Your task to perform on an android device: move an email to a new category in the gmail app Image 0: 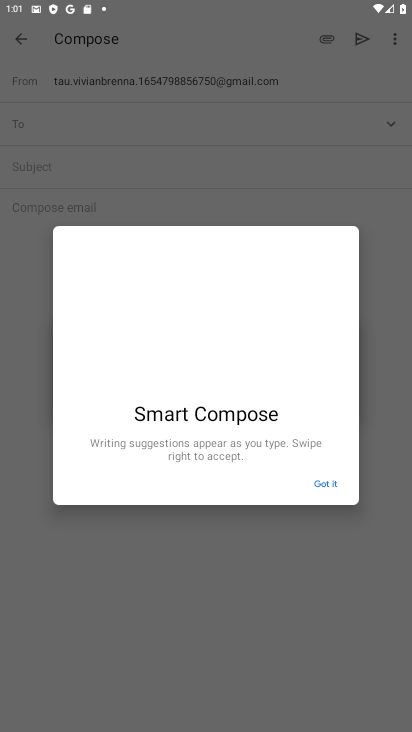
Step 0: press home button
Your task to perform on an android device: move an email to a new category in the gmail app Image 1: 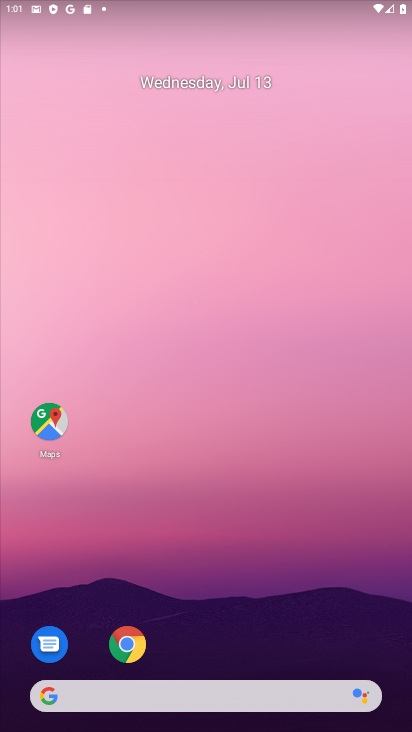
Step 1: drag from (249, 642) to (195, 113)
Your task to perform on an android device: move an email to a new category in the gmail app Image 2: 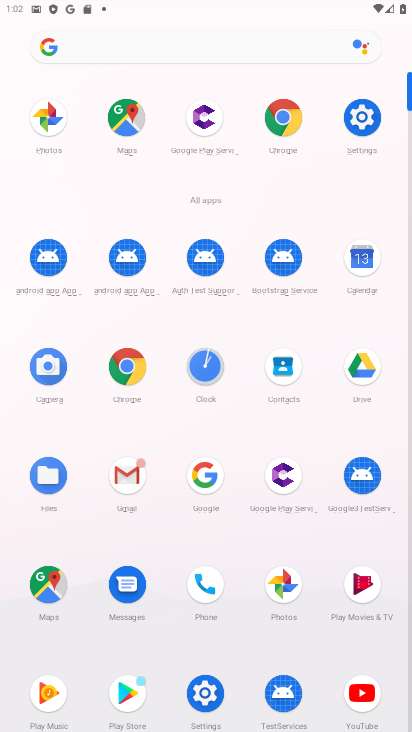
Step 2: click (128, 479)
Your task to perform on an android device: move an email to a new category in the gmail app Image 3: 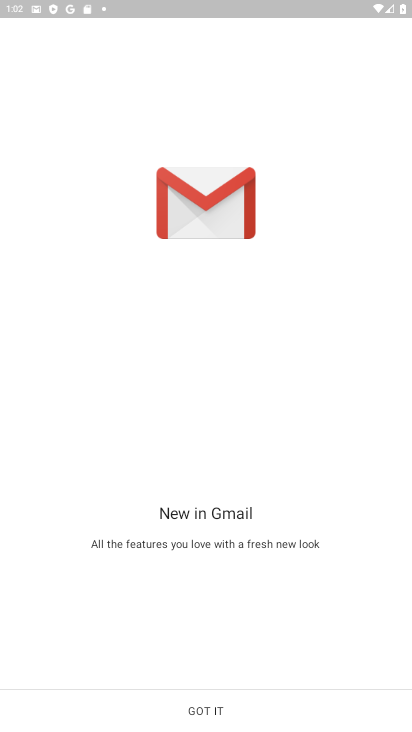
Step 3: click (207, 711)
Your task to perform on an android device: move an email to a new category in the gmail app Image 4: 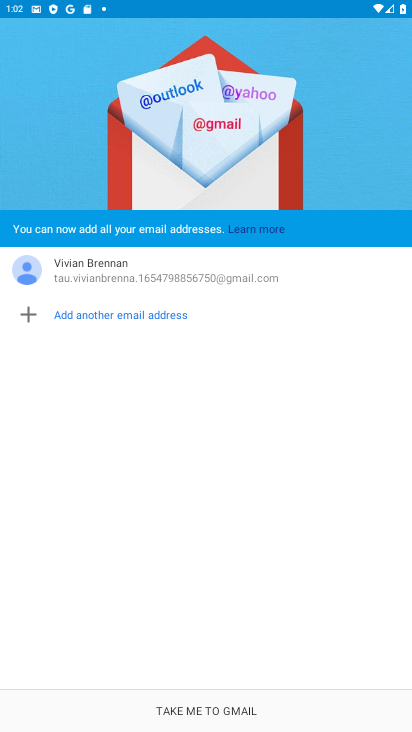
Step 4: click (208, 710)
Your task to perform on an android device: move an email to a new category in the gmail app Image 5: 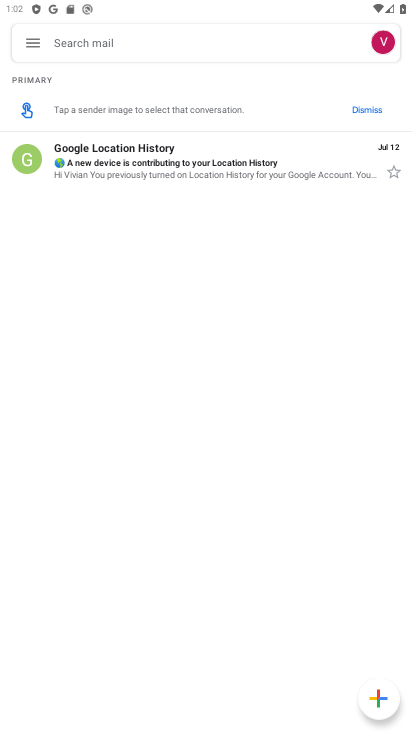
Step 5: click (253, 167)
Your task to perform on an android device: move an email to a new category in the gmail app Image 6: 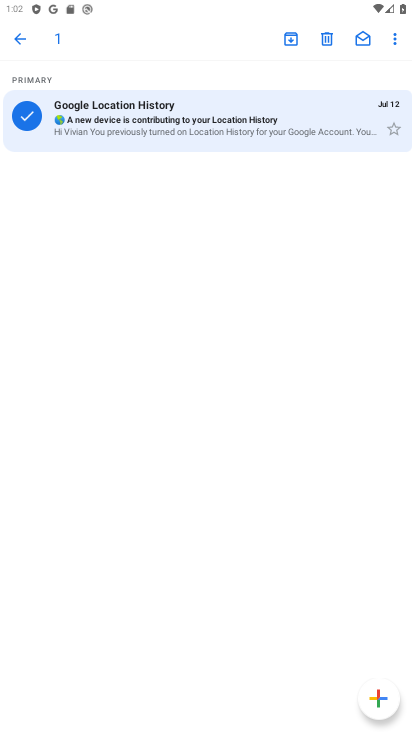
Step 6: click (397, 30)
Your task to perform on an android device: move an email to a new category in the gmail app Image 7: 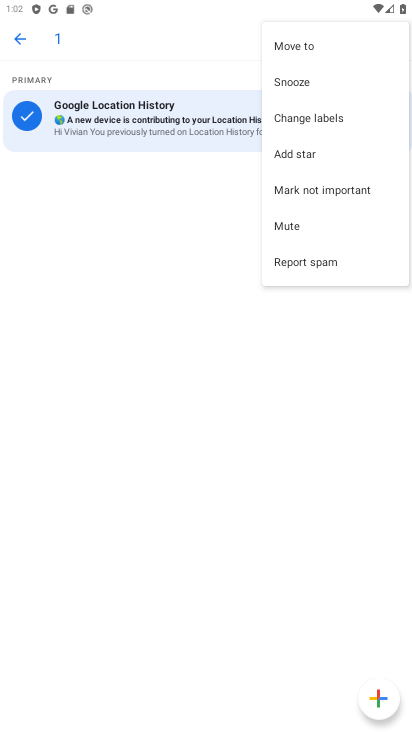
Step 7: click (361, 44)
Your task to perform on an android device: move an email to a new category in the gmail app Image 8: 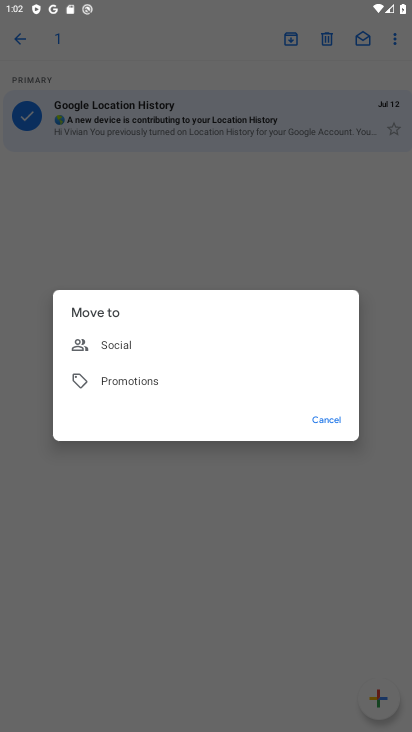
Step 8: click (198, 350)
Your task to perform on an android device: move an email to a new category in the gmail app Image 9: 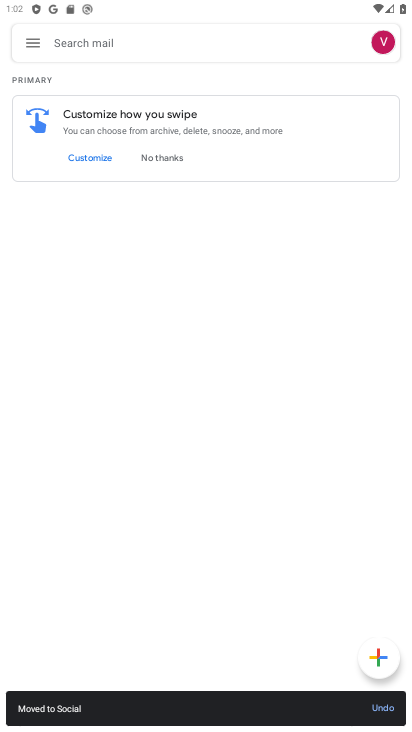
Step 9: task complete